Your task to perform on an android device: What is the news today? Image 0: 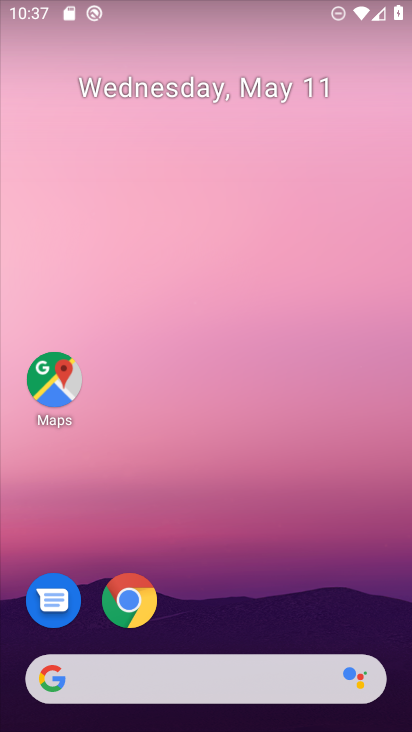
Step 0: press home button
Your task to perform on an android device: What is the news today? Image 1: 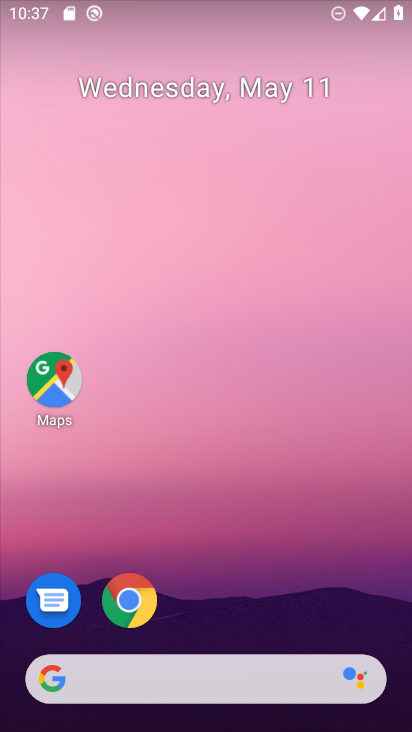
Step 1: click (127, 587)
Your task to perform on an android device: What is the news today? Image 2: 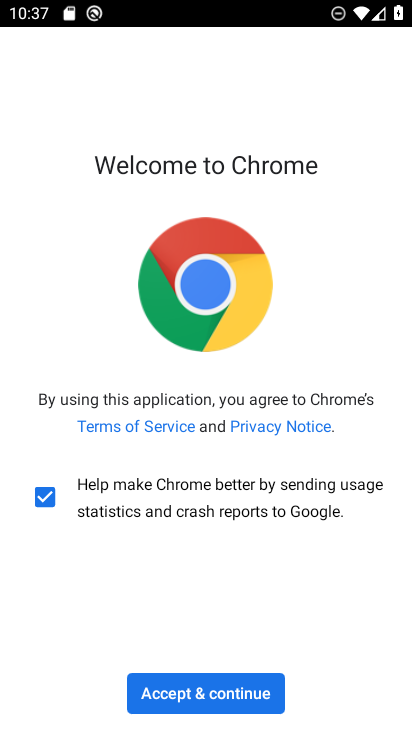
Step 2: click (234, 693)
Your task to perform on an android device: What is the news today? Image 3: 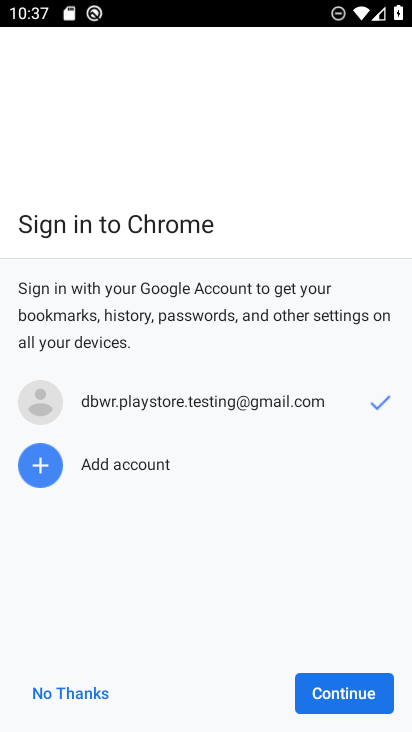
Step 3: click (347, 685)
Your task to perform on an android device: What is the news today? Image 4: 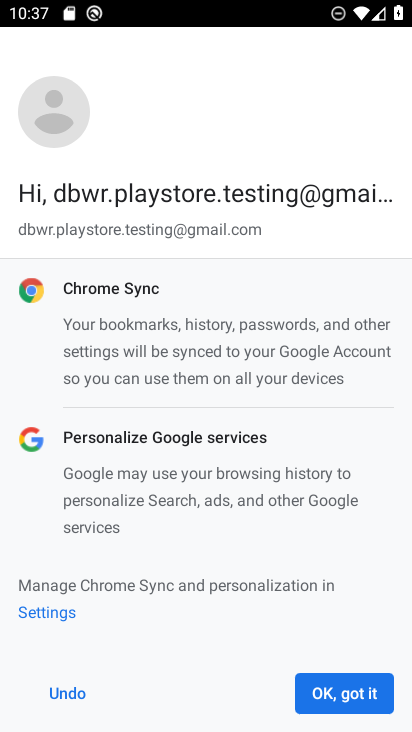
Step 4: click (347, 685)
Your task to perform on an android device: What is the news today? Image 5: 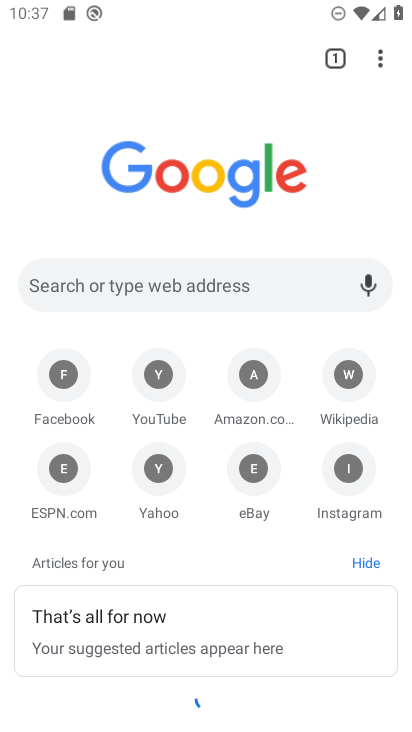
Step 5: click (242, 291)
Your task to perform on an android device: What is the news today? Image 6: 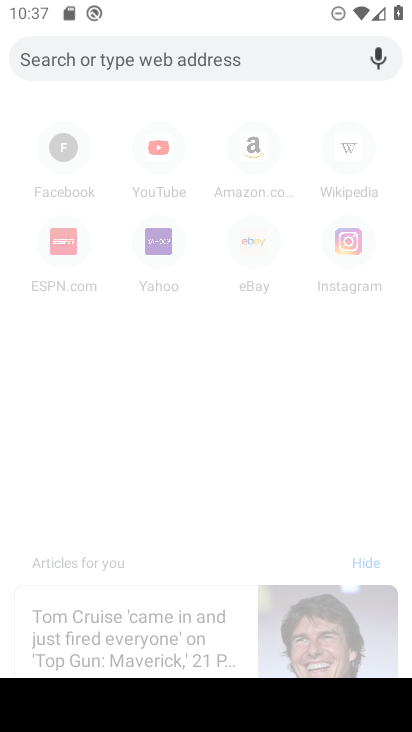
Step 6: type "What is the news today?"
Your task to perform on an android device: What is the news today? Image 7: 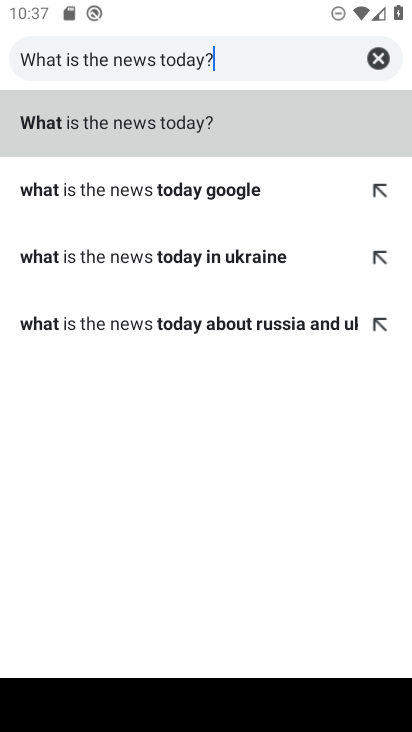
Step 7: click (160, 117)
Your task to perform on an android device: What is the news today? Image 8: 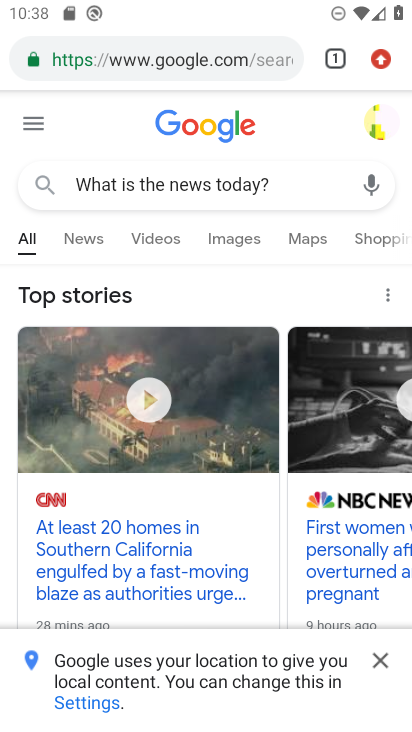
Step 8: click (79, 238)
Your task to perform on an android device: What is the news today? Image 9: 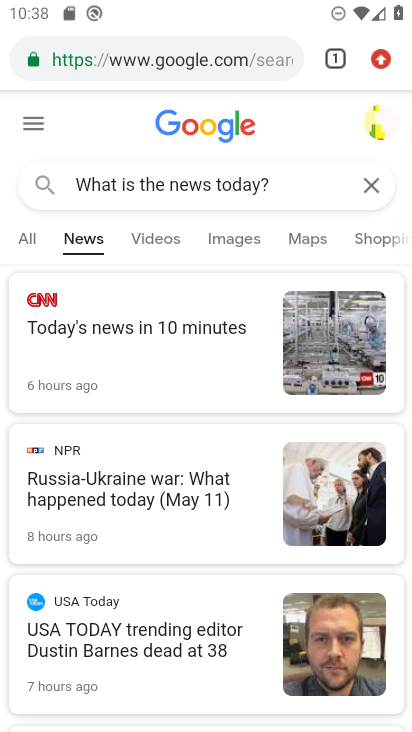
Step 9: task complete